Your task to perform on an android device: Open Youtube and go to "Your channel" Image 0: 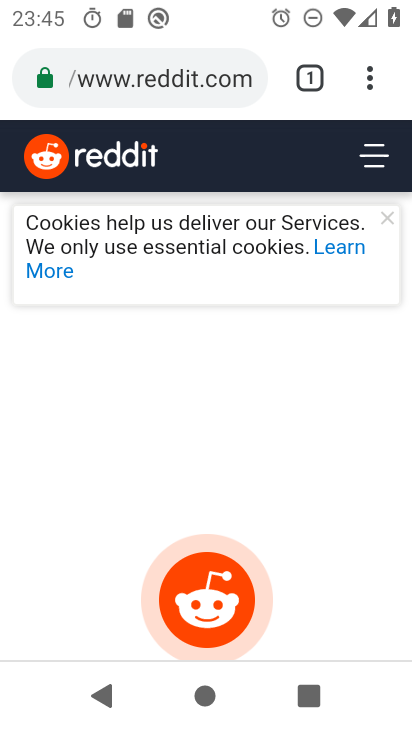
Step 0: press home button
Your task to perform on an android device: Open Youtube and go to "Your channel" Image 1: 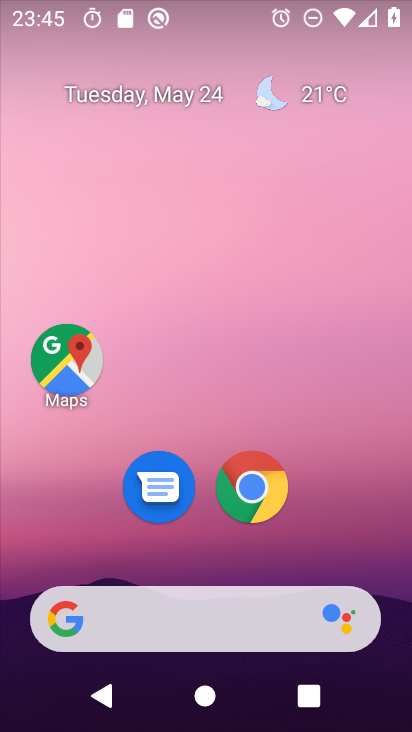
Step 1: drag from (353, 572) to (378, 0)
Your task to perform on an android device: Open Youtube and go to "Your channel" Image 2: 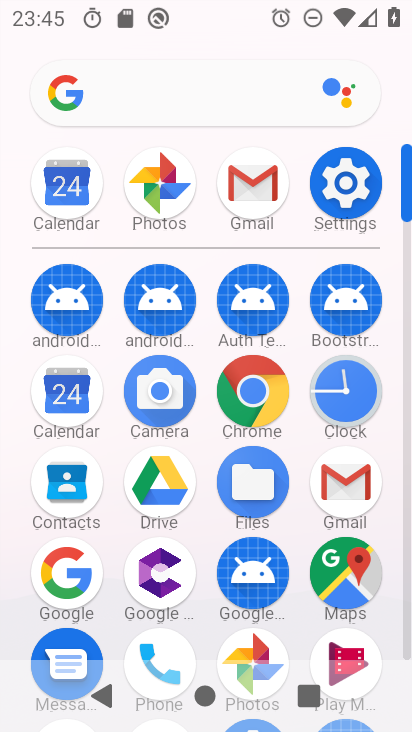
Step 2: click (408, 547)
Your task to perform on an android device: Open Youtube and go to "Your channel" Image 3: 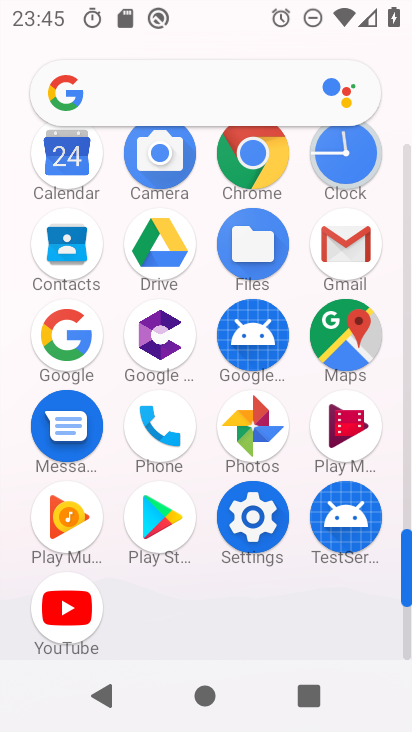
Step 3: click (75, 614)
Your task to perform on an android device: Open Youtube and go to "Your channel" Image 4: 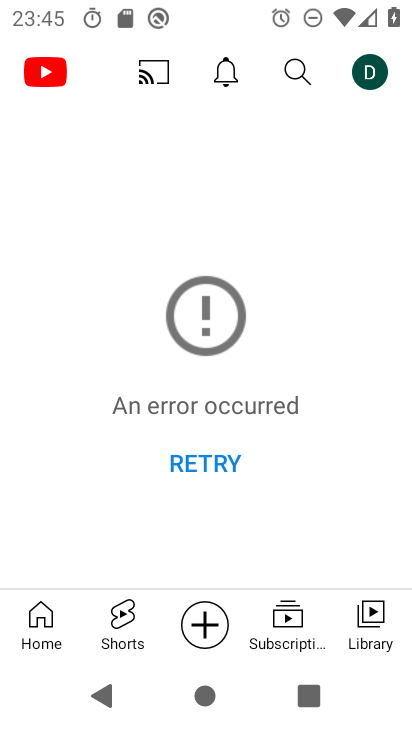
Step 4: click (368, 82)
Your task to perform on an android device: Open Youtube and go to "Your channel" Image 5: 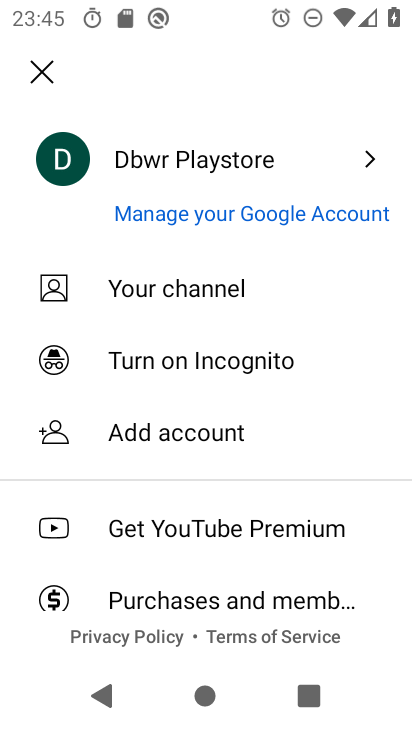
Step 5: click (145, 289)
Your task to perform on an android device: Open Youtube and go to "Your channel" Image 6: 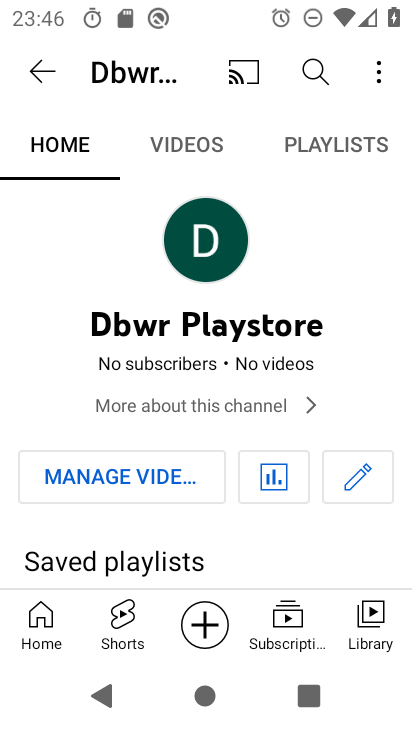
Step 6: task complete